Your task to perform on an android device: open app "Spotify" (install if not already installed) and enter user name: "infallible@icloud.com" and password: "implored" Image 0: 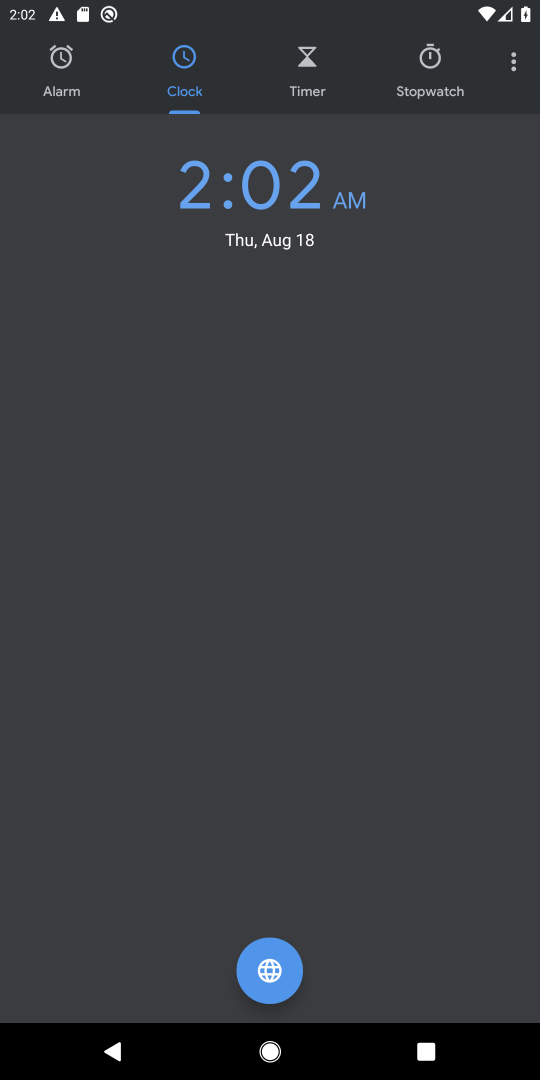
Step 0: press home button
Your task to perform on an android device: open app "Spotify" (install if not already installed) and enter user name: "infallible@icloud.com" and password: "implored" Image 1: 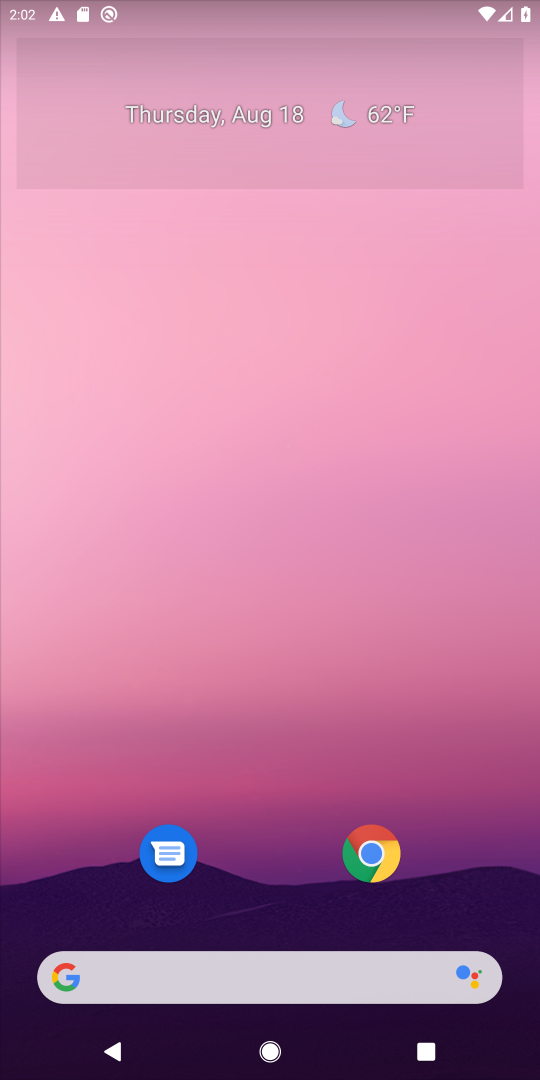
Step 1: drag from (448, 836) to (163, 16)
Your task to perform on an android device: open app "Spotify" (install if not already installed) and enter user name: "infallible@icloud.com" and password: "implored" Image 2: 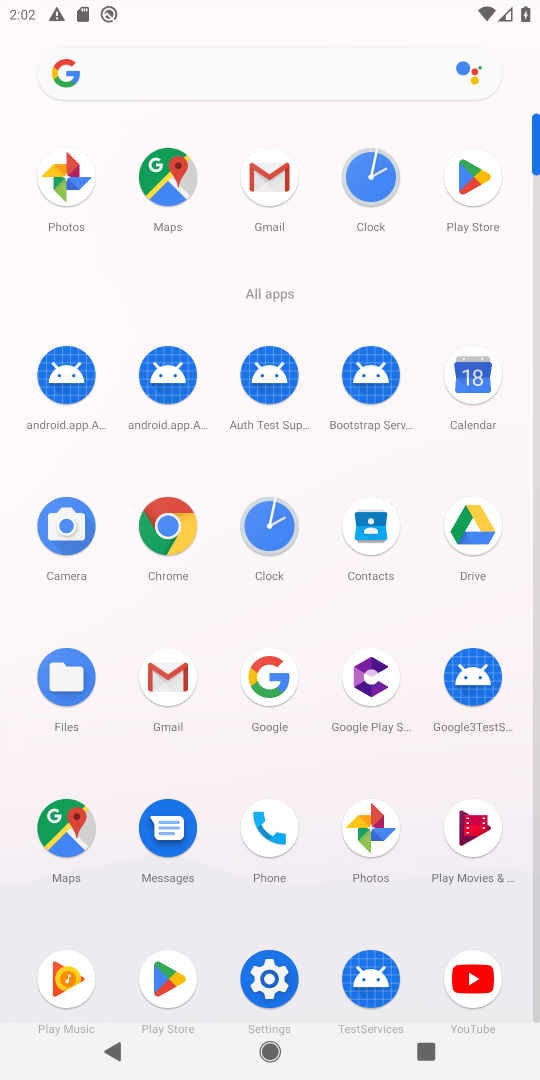
Step 2: click (483, 190)
Your task to perform on an android device: open app "Spotify" (install if not already installed) and enter user name: "infallible@icloud.com" and password: "implored" Image 3: 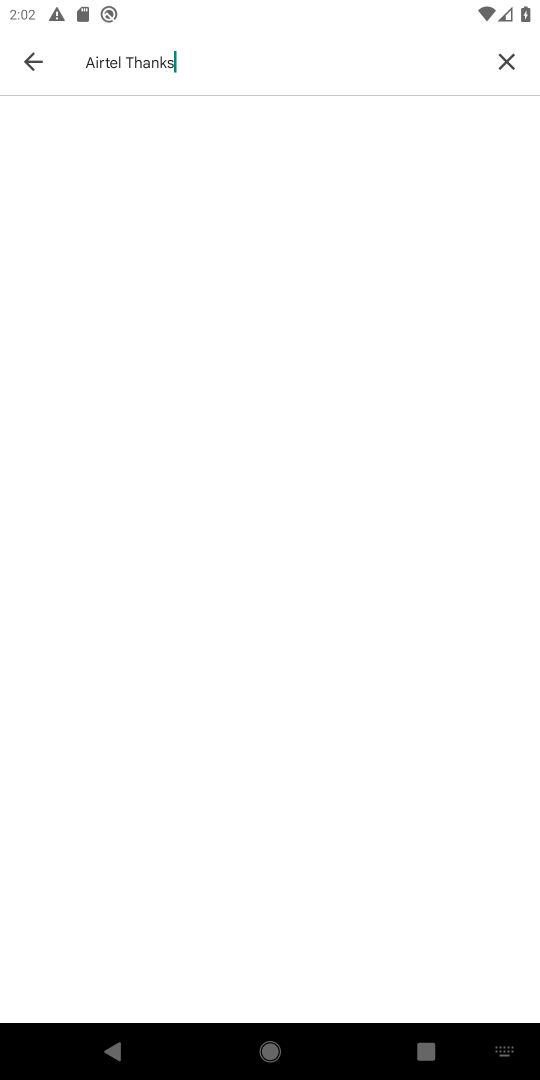
Step 3: click (499, 43)
Your task to perform on an android device: open app "Spotify" (install if not already installed) and enter user name: "infallible@icloud.com" and password: "implored" Image 4: 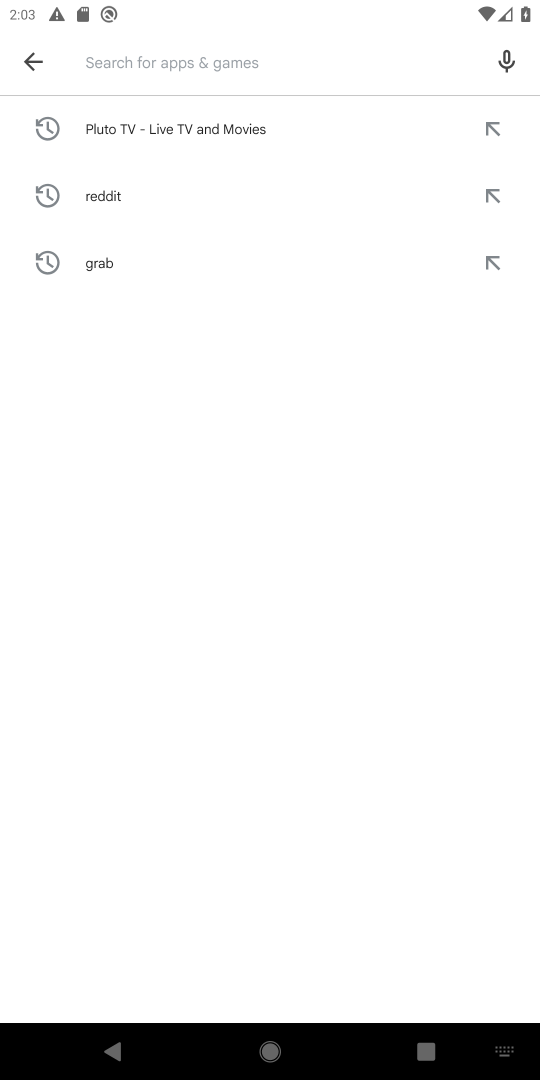
Step 4: type "Spotify"
Your task to perform on an android device: open app "Spotify" (install if not already installed) and enter user name: "infallible@icloud.com" and password: "implored" Image 5: 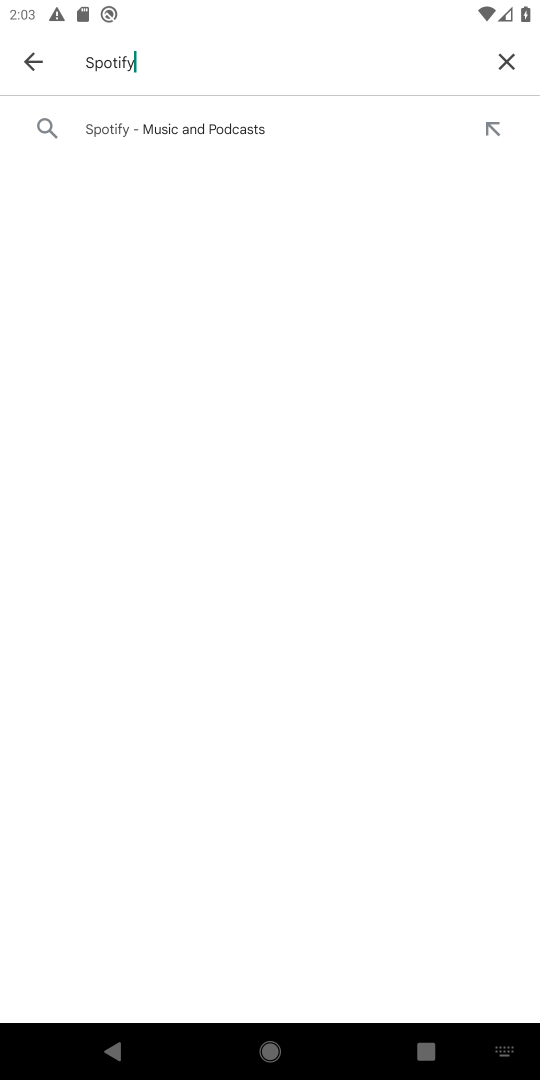
Step 5: click (161, 136)
Your task to perform on an android device: open app "Spotify" (install if not already installed) and enter user name: "infallible@icloud.com" and password: "implored" Image 6: 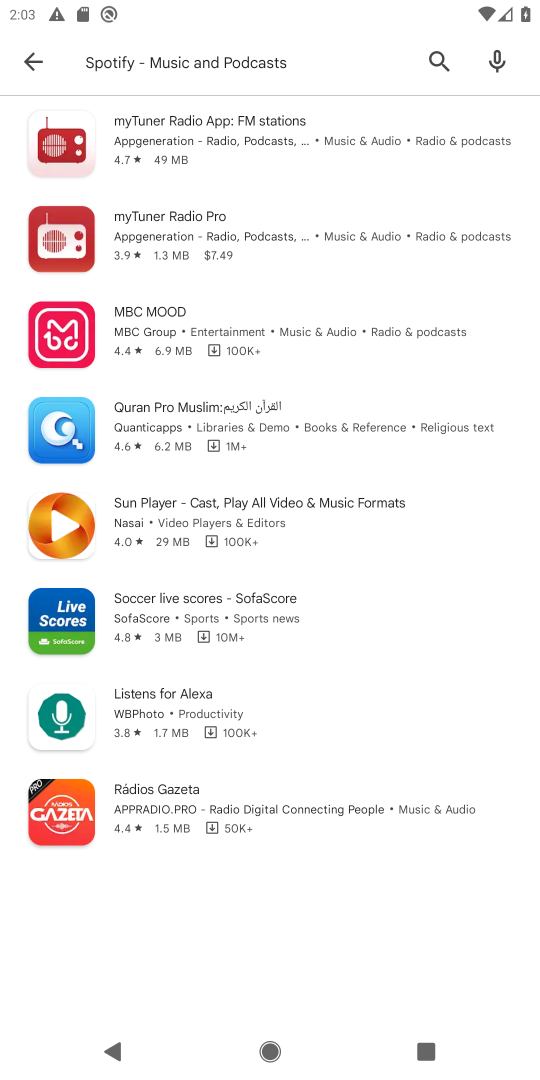
Step 6: task complete